Your task to perform on an android device: Open Youtube and go to the subscriptions tab Image 0: 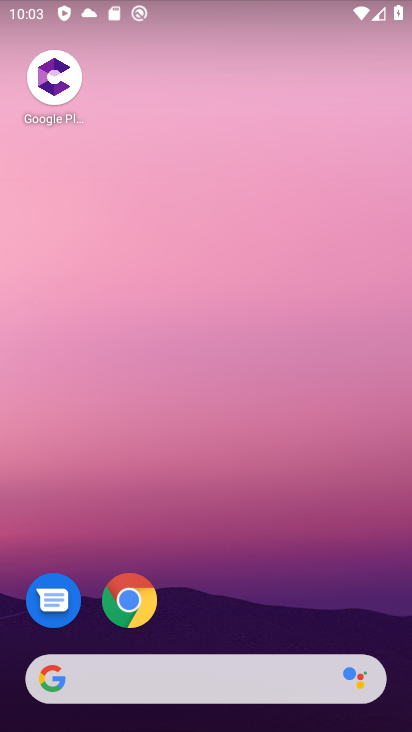
Step 0: drag from (226, 604) to (287, 16)
Your task to perform on an android device: Open Youtube and go to the subscriptions tab Image 1: 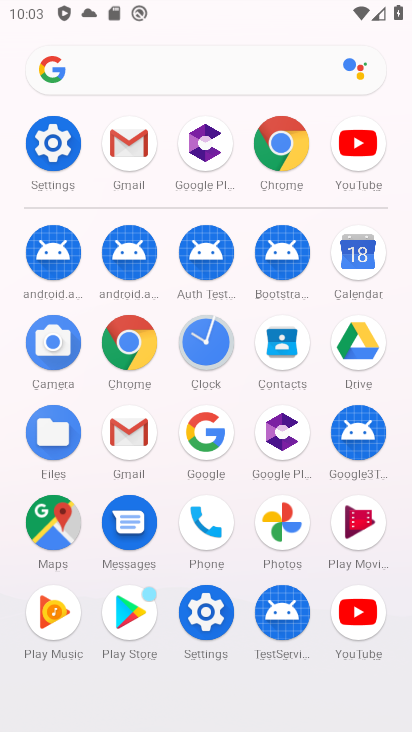
Step 1: click (366, 637)
Your task to perform on an android device: Open Youtube and go to the subscriptions tab Image 2: 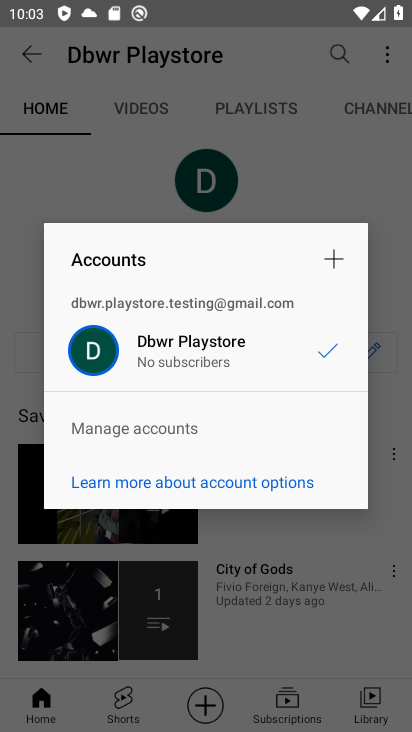
Step 2: click (55, 169)
Your task to perform on an android device: Open Youtube and go to the subscriptions tab Image 3: 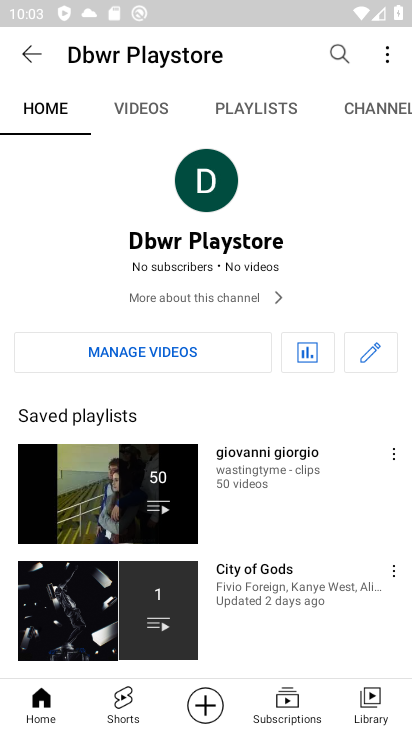
Step 3: click (277, 701)
Your task to perform on an android device: Open Youtube and go to the subscriptions tab Image 4: 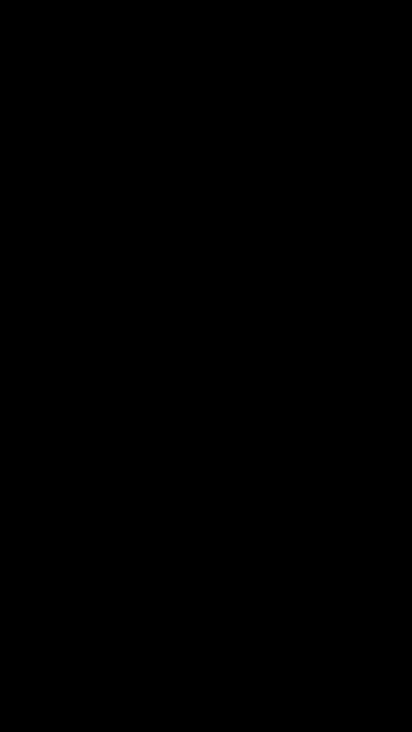
Step 4: task complete